Your task to perform on an android device: Open the stopwatch Image 0: 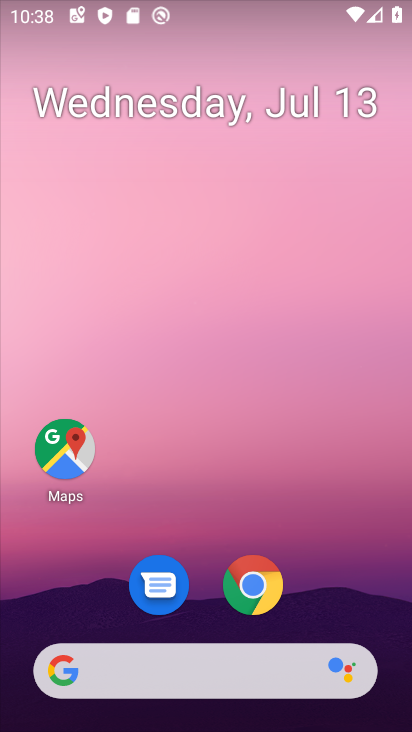
Step 0: drag from (313, 580) to (306, 108)
Your task to perform on an android device: Open the stopwatch Image 1: 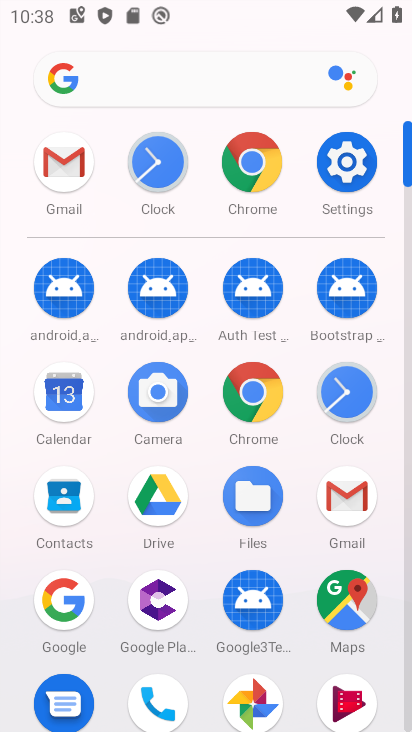
Step 1: click (343, 405)
Your task to perform on an android device: Open the stopwatch Image 2: 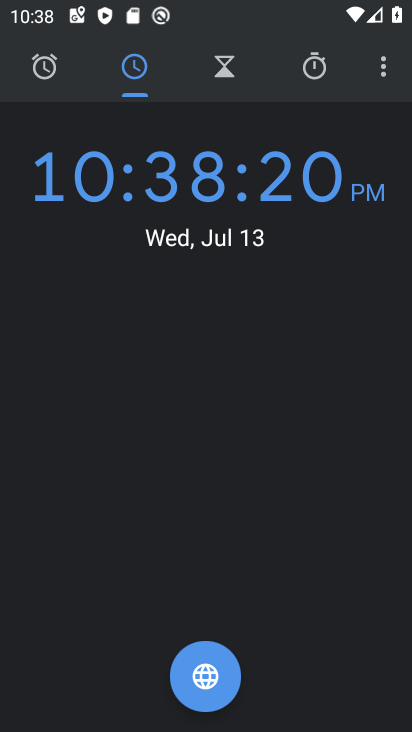
Step 2: click (304, 62)
Your task to perform on an android device: Open the stopwatch Image 3: 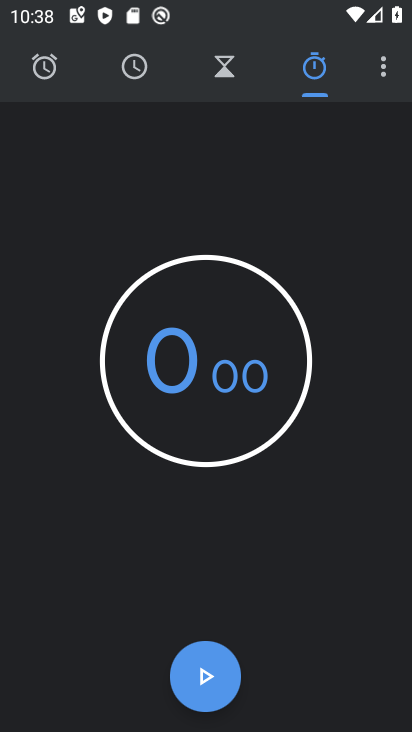
Step 3: task complete